Your task to perform on an android device: turn on wifi Image 0: 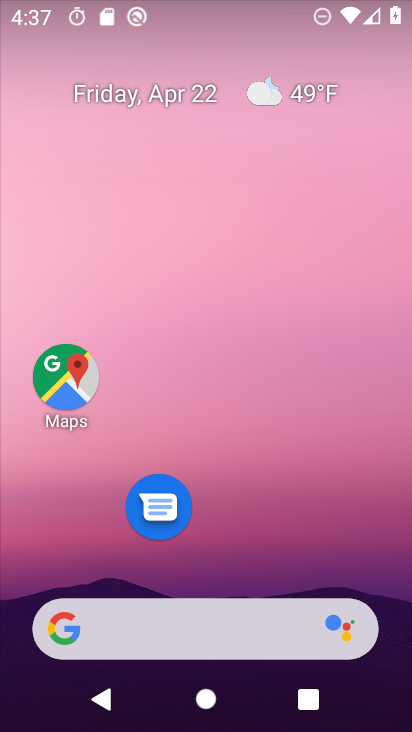
Step 0: drag from (135, 12) to (205, 473)
Your task to perform on an android device: turn on wifi Image 1: 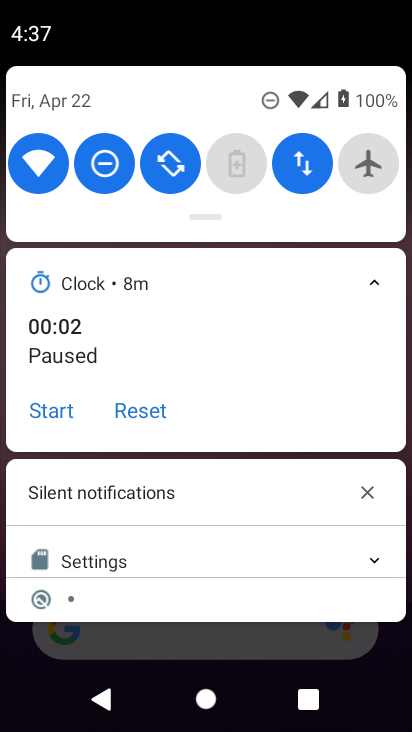
Step 1: task complete